Your task to perform on an android device: Open maps Image 0: 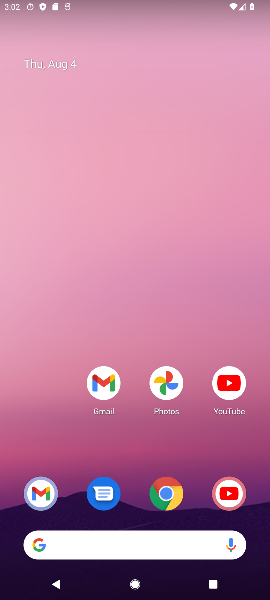
Step 0: drag from (105, 474) to (203, 18)
Your task to perform on an android device: Open maps Image 1: 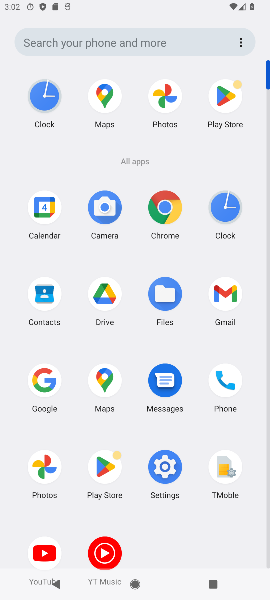
Step 1: click (98, 97)
Your task to perform on an android device: Open maps Image 2: 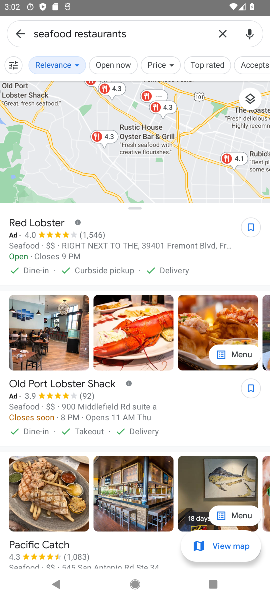
Step 2: click (18, 26)
Your task to perform on an android device: Open maps Image 3: 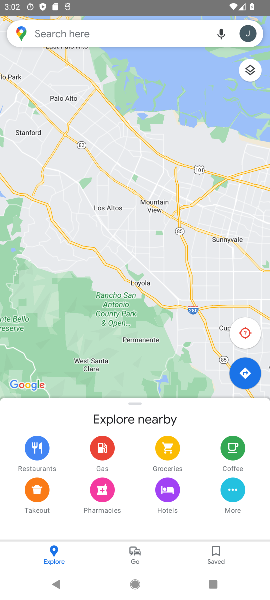
Step 3: task complete